Your task to perform on an android device: Go to calendar. Show me events next week Image 0: 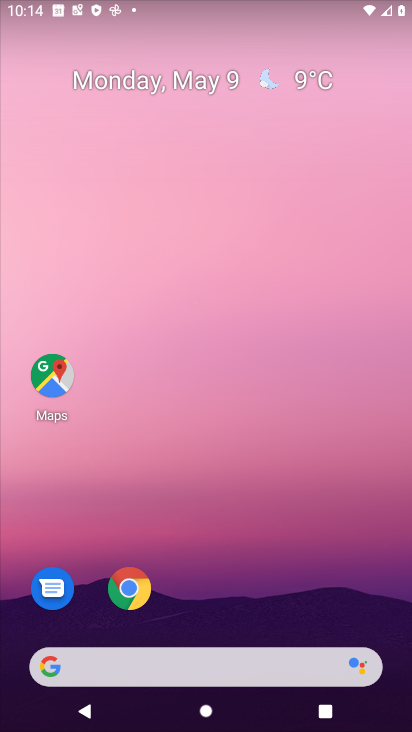
Step 0: press home button
Your task to perform on an android device: Go to calendar. Show me events next week Image 1: 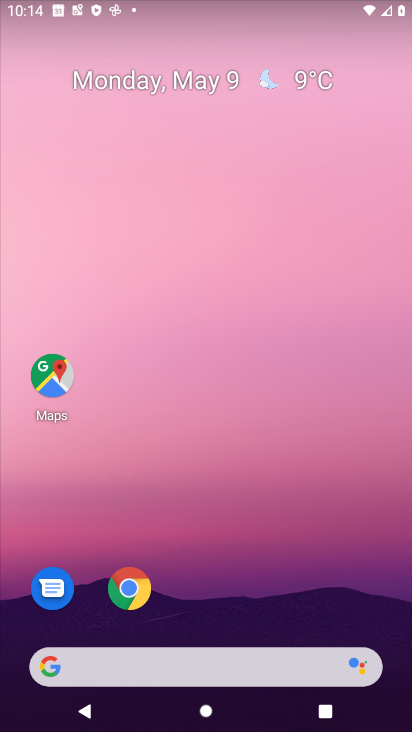
Step 1: drag from (119, 664) to (272, 191)
Your task to perform on an android device: Go to calendar. Show me events next week Image 2: 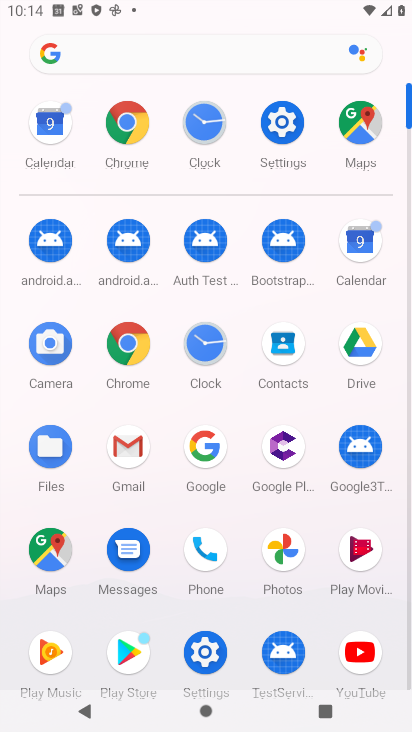
Step 2: click (365, 248)
Your task to perform on an android device: Go to calendar. Show me events next week Image 3: 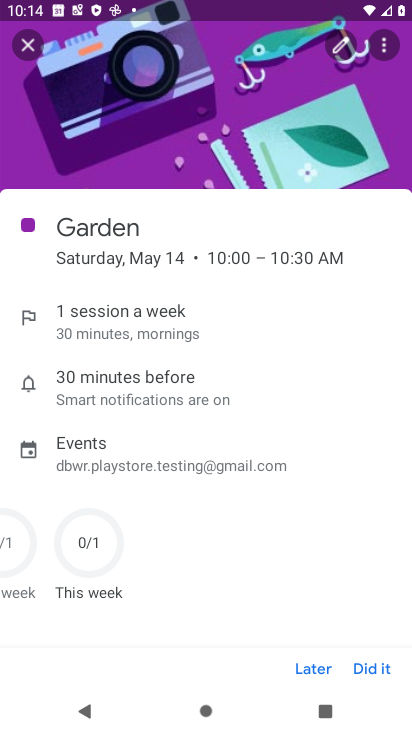
Step 3: click (37, 42)
Your task to perform on an android device: Go to calendar. Show me events next week Image 4: 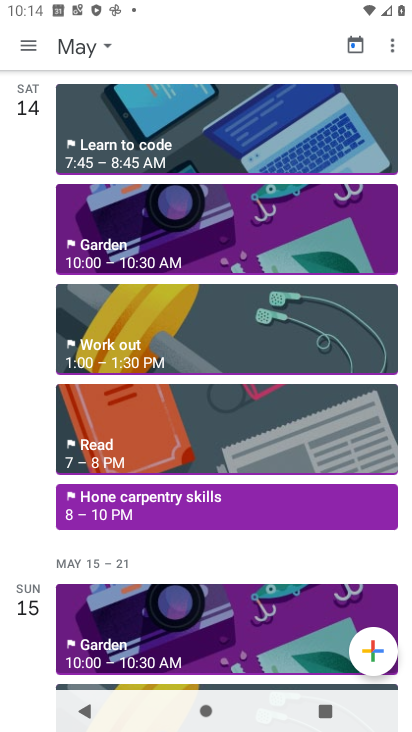
Step 4: click (80, 39)
Your task to perform on an android device: Go to calendar. Show me events next week Image 5: 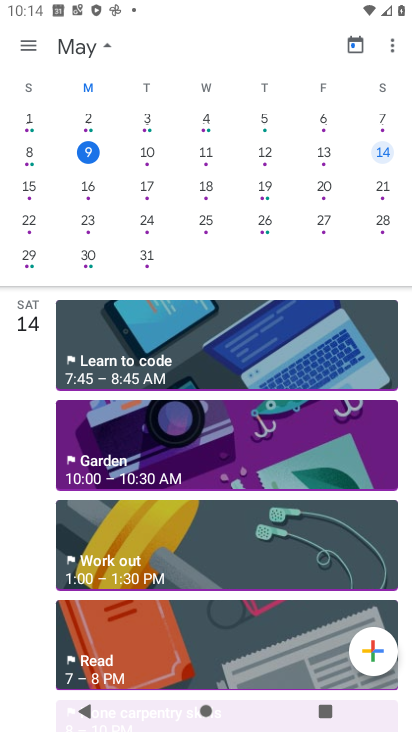
Step 5: click (30, 188)
Your task to perform on an android device: Go to calendar. Show me events next week Image 6: 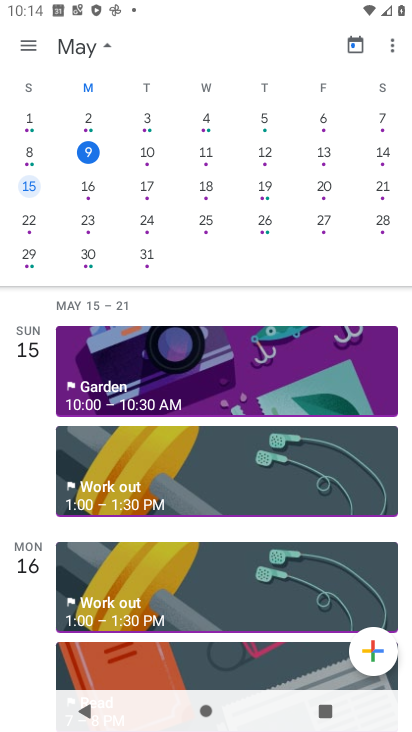
Step 6: click (29, 44)
Your task to perform on an android device: Go to calendar. Show me events next week Image 7: 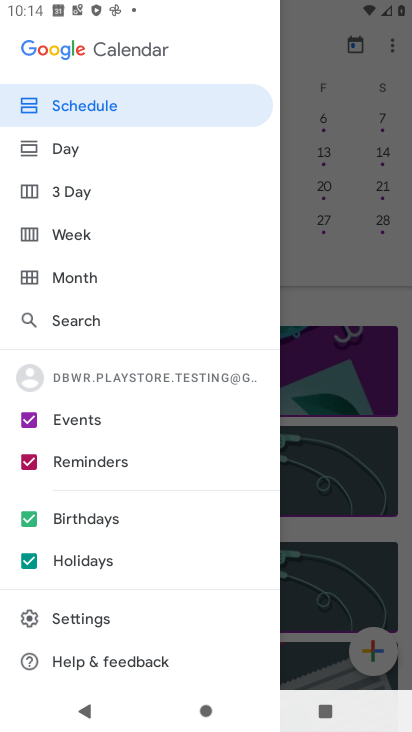
Step 7: click (91, 233)
Your task to perform on an android device: Go to calendar. Show me events next week Image 8: 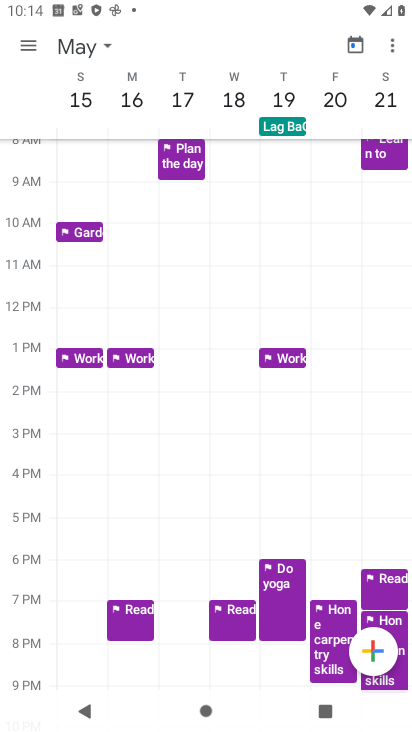
Step 8: click (34, 43)
Your task to perform on an android device: Go to calendar. Show me events next week Image 9: 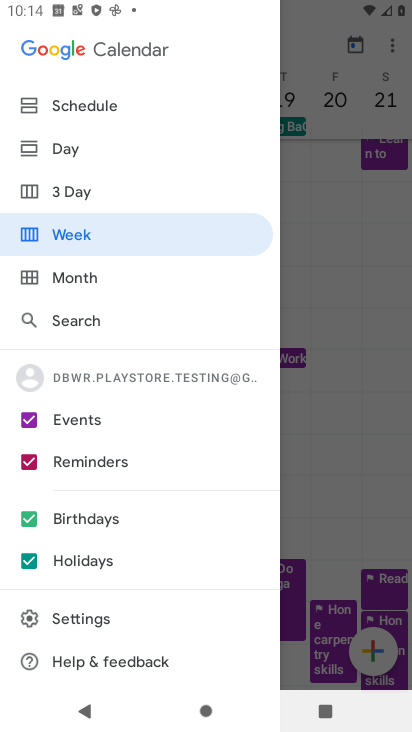
Step 9: click (81, 107)
Your task to perform on an android device: Go to calendar. Show me events next week Image 10: 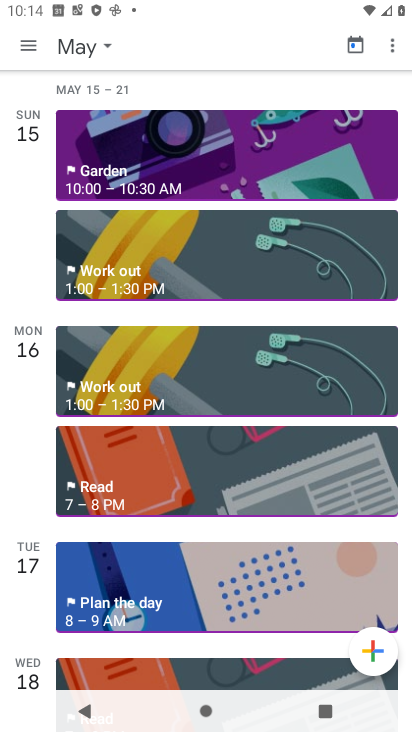
Step 10: click (165, 171)
Your task to perform on an android device: Go to calendar. Show me events next week Image 11: 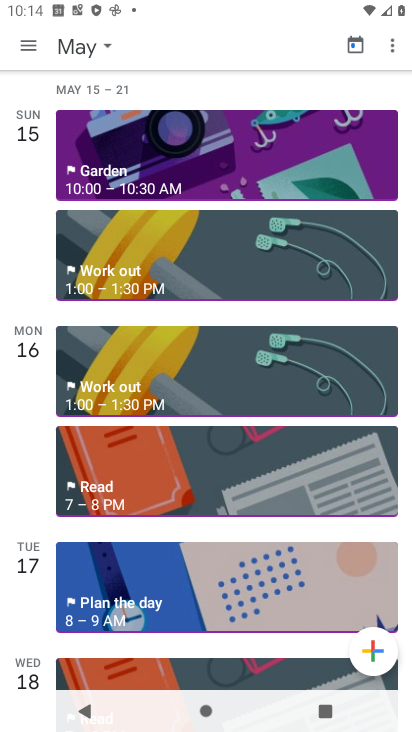
Step 11: click (91, 169)
Your task to perform on an android device: Go to calendar. Show me events next week Image 12: 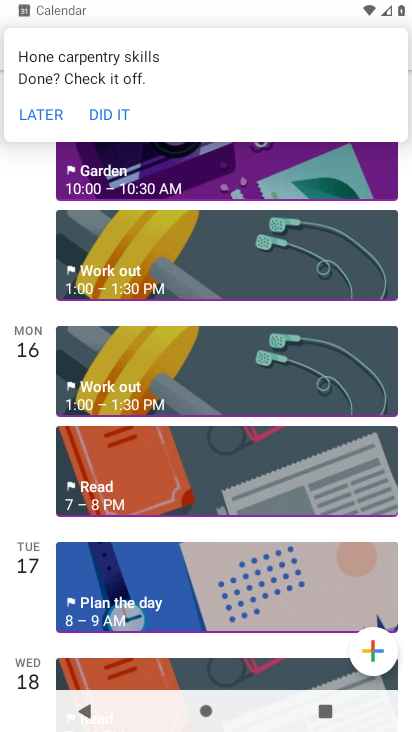
Step 12: click (103, 175)
Your task to perform on an android device: Go to calendar. Show me events next week Image 13: 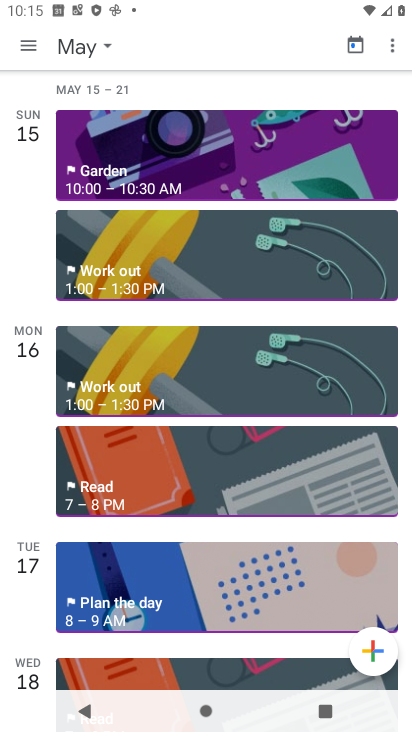
Step 13: click (30, 40)
Your task to perform on an android device: Go to calendar. Show me events next week Image 14: 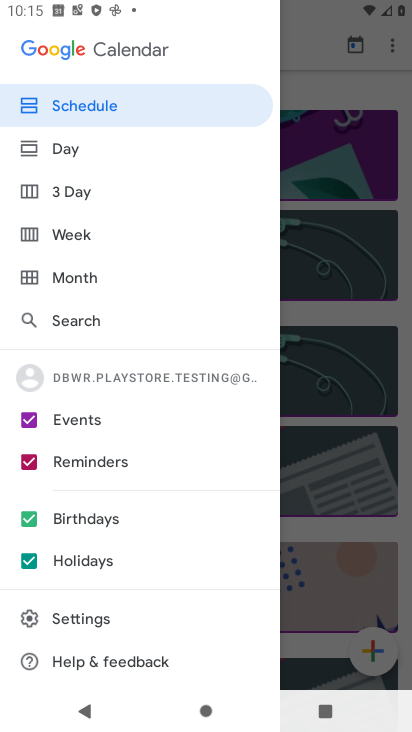
Step 14: click (60, 234)
Your task to perform on an android device: Go to calendar. Show me events next week Image 15: 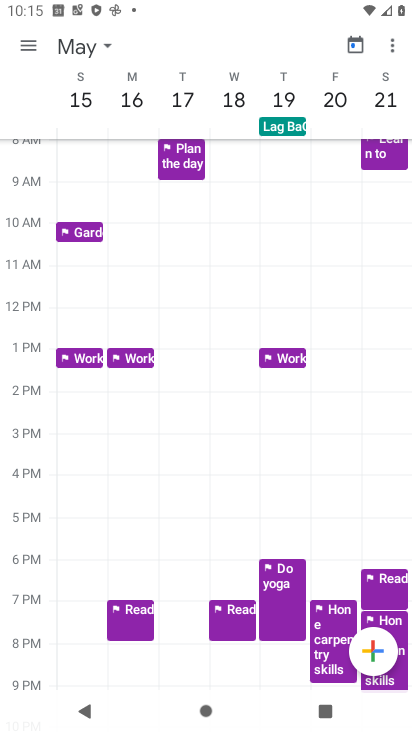
Step 15: click (179, 162)
Your task to perform on an android device: Go to calendar. Show me events next week Image 16: 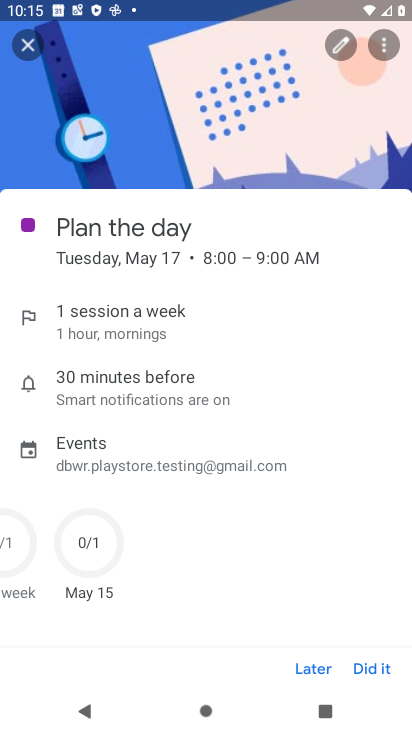
Step 16: task complete